Your task to perform on an android device: allow notifications from all sites in the chrome app Image 0: 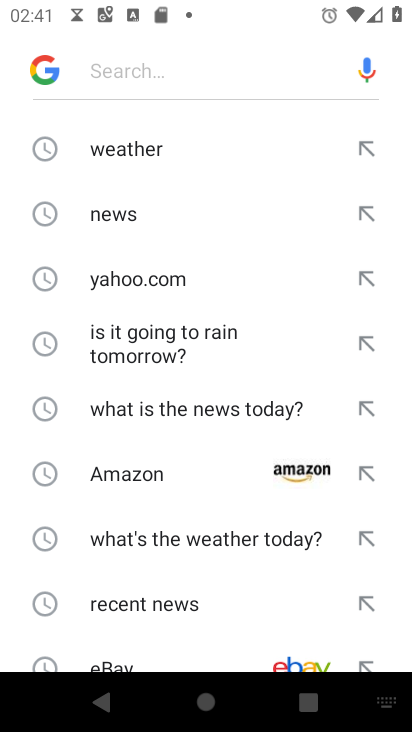
Step 0: press home button
Your task to perform on an android device: allow notifications from all sites in the chrome app Image 1: 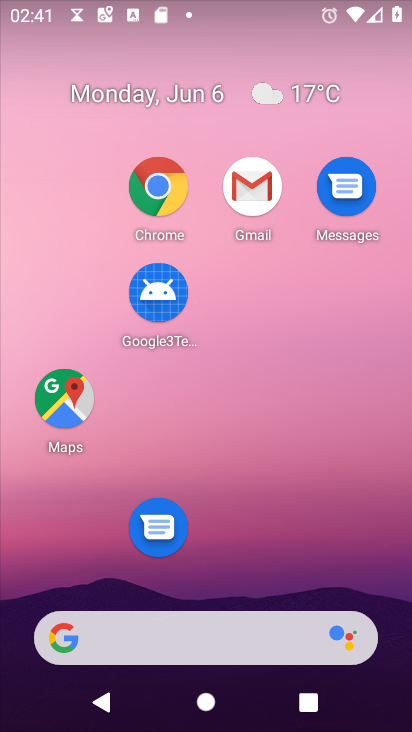
Step 1: click (156, 202)
Your task to perform on an android device: allow notifications from all sites in the chrome app Image 2: 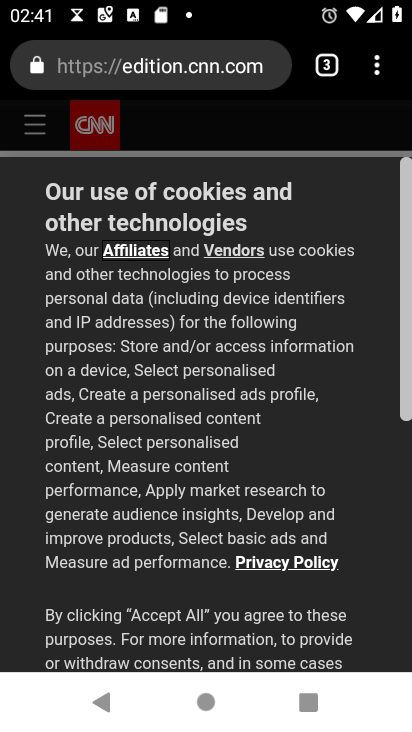
Step 2: click (376, 53)
Your task to perform on an android device: allow notifications from all sites in the chrome app Image 3: 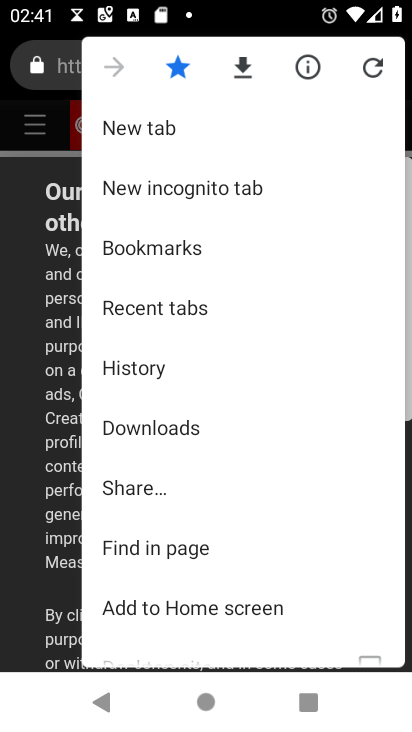
Step 3: drag from (355, 576) to (317, 196)
Your task to perform on an android device: allow notifications from all sites in the chrome app Image 4: 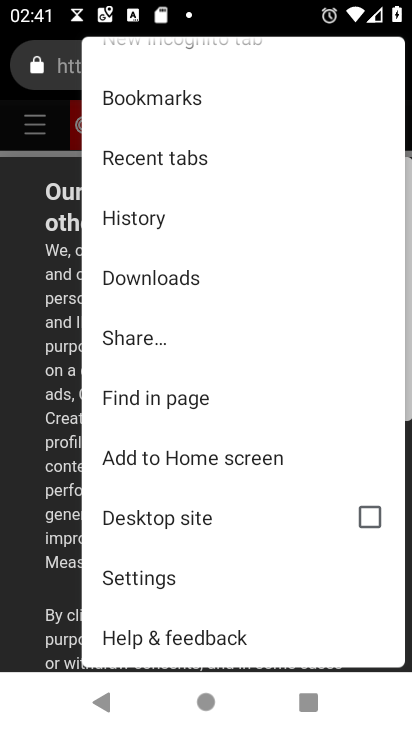
Step 4: click (133, 564)
Your task to perform on an android device: allow notifications from all sites in the chrome app Image 5: 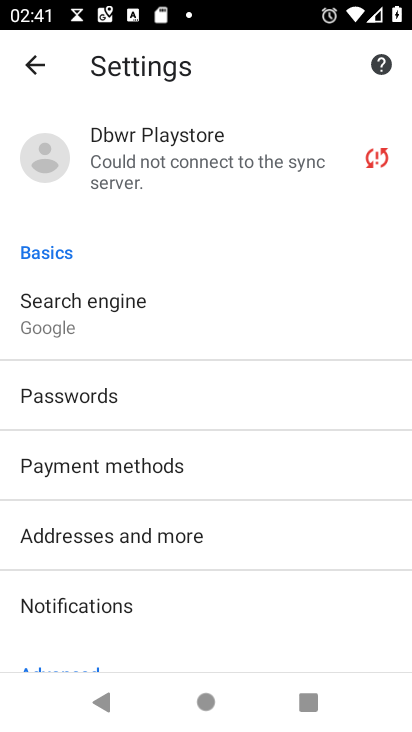
Step 5: click (94, 610)
Your task to perform on an android device: allow notifications from all sites in the chrome app Image 6: 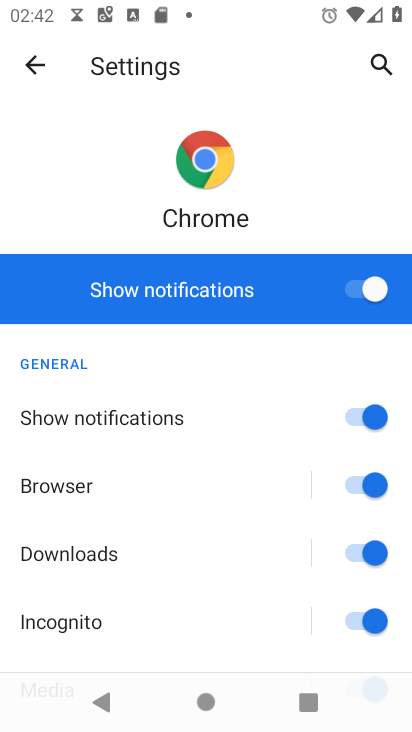
Step 6: drag from (237, 604) to (224, 211)
Your task to perform on an android device: allow notifications from all sites in the chrome app Image 7: 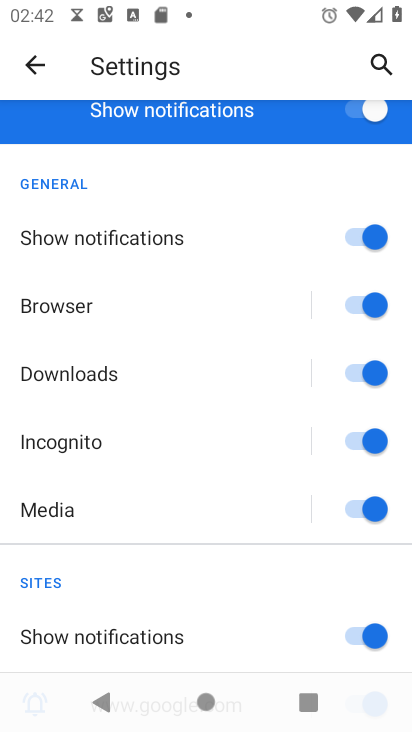
Step 7: drag from (174, 580) to (166, 289)
Your task to perform on an android device: allow notifications from all sites in the chrome app Image 8: 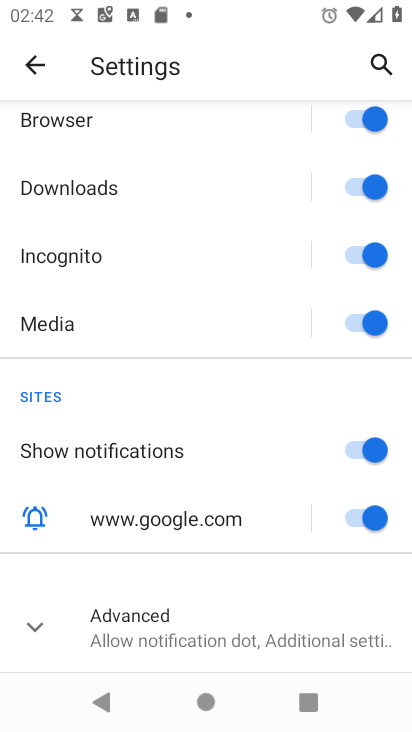
Step 8: click (261, 622)
Your task to perform on an android device: allow notifications from all sites in the chrome app Image 9: 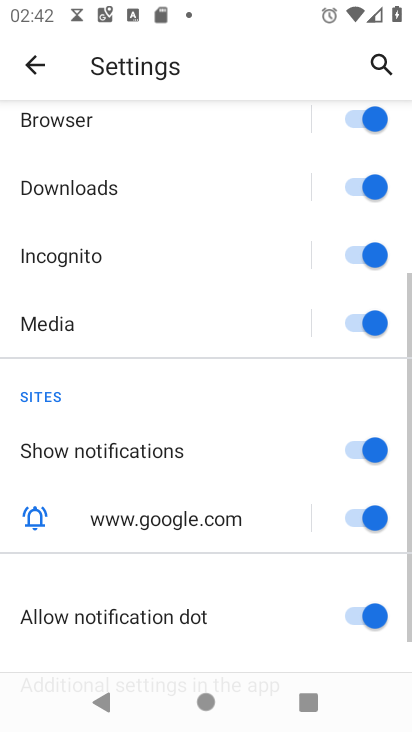
Step 9: task complete